Your task to perform on an android device: View the shopping cart on costco.com. Add "razer nari" to the cart on costco.com Image 0: 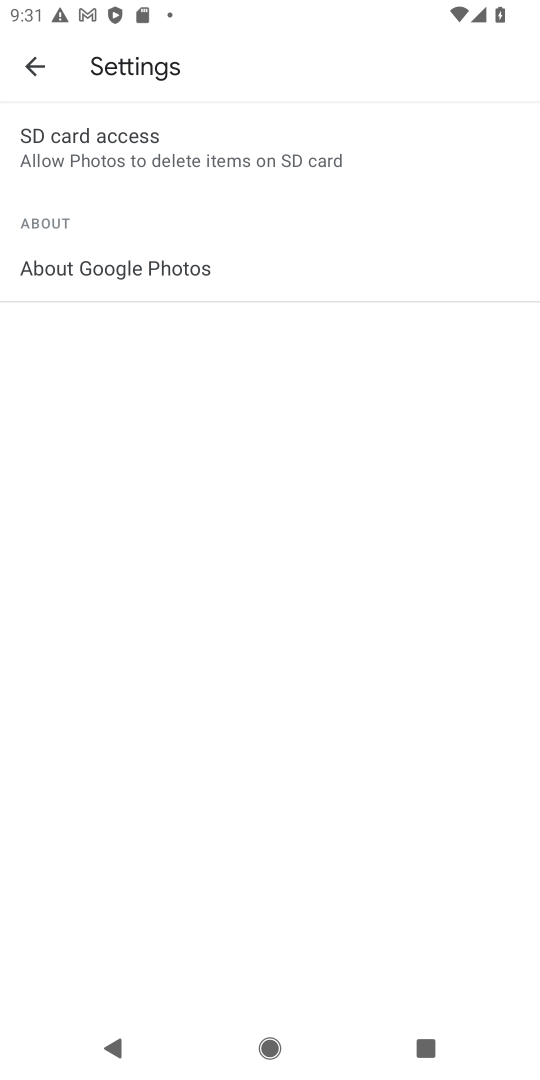
Step 0: press home button
Your task to perform on an android device: View the shopping cart on costco.com. Add "razer nari" to the cart on costco.com Image 1: 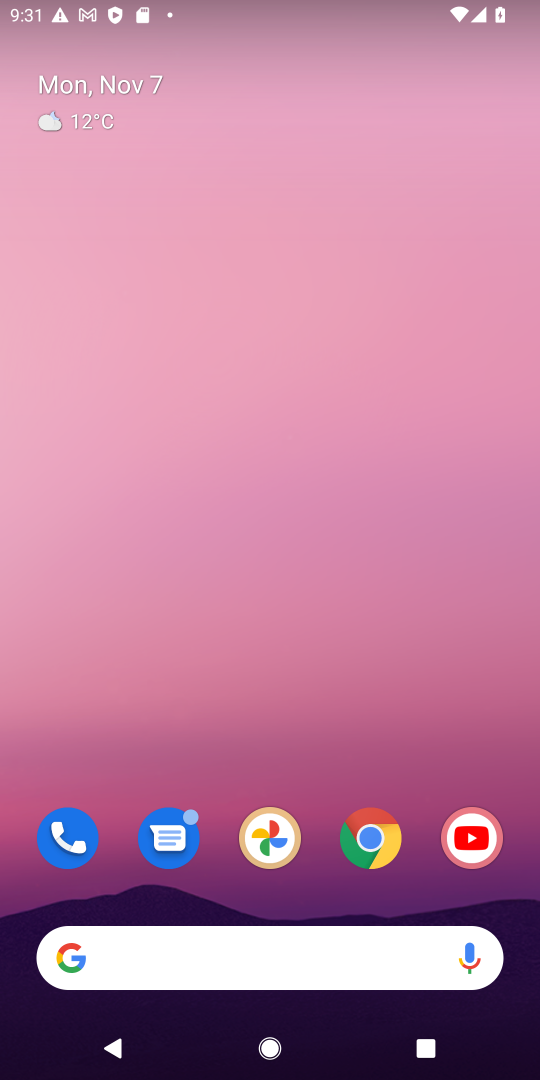
Step 1: click (383, 836)
Your task to perform on an android device: View the shopping cart on costco.com. Add "razer nari" to the cart on costco.com Image 2: 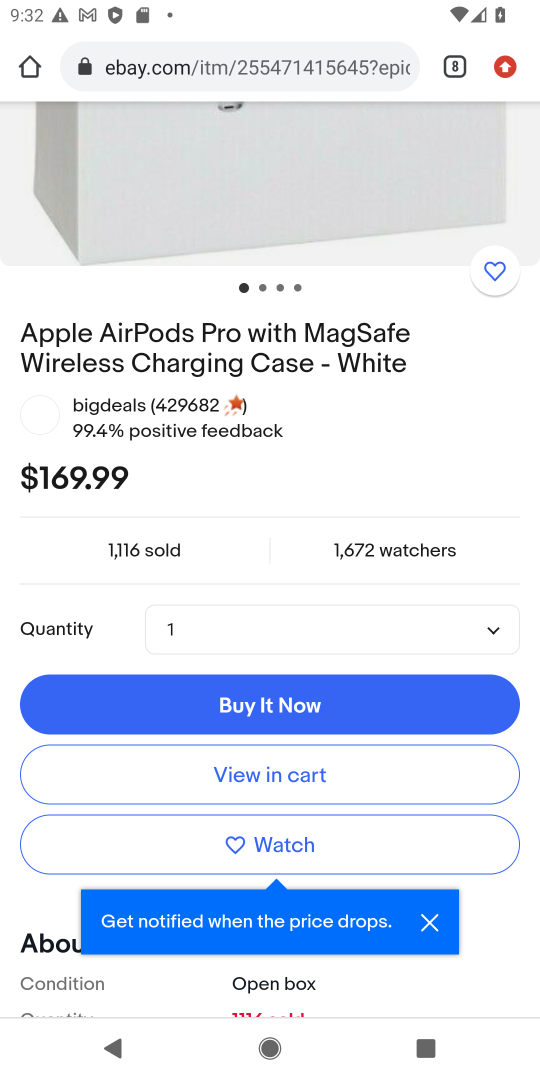
Step 2: click (457, 66)
Your task to perform on an android device: View the shopping cart on costco.com. Add "razer nari" to the cart on costco.com Image 3: 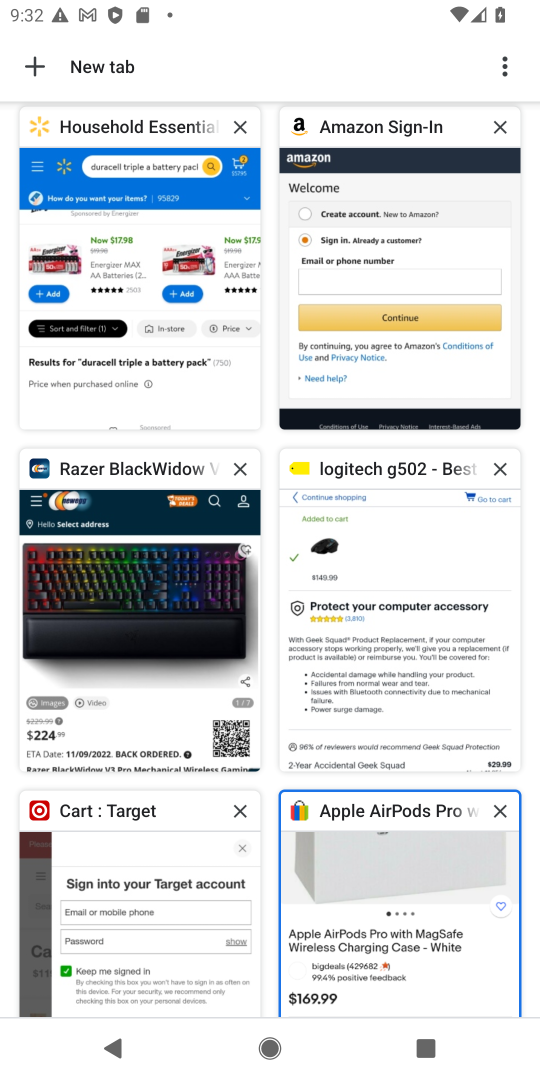
Step 3: click (195, 869)
Your task to perform on an android device: View the shopping cart on costco.com. Add "razer nari" to the cart on costco.com Image 4: 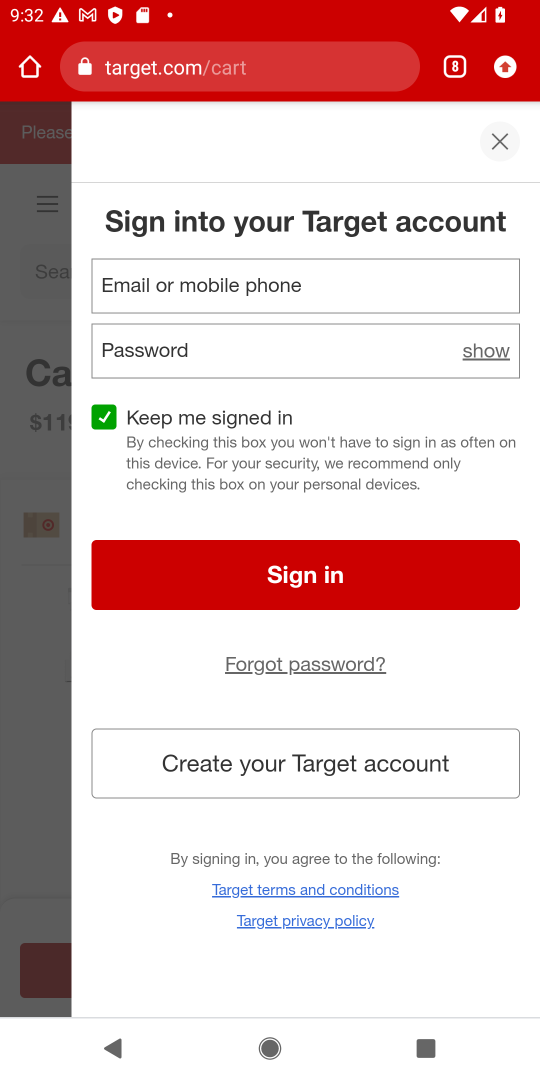
Step 4: click (496, 138)
Your task to perform on an android device: View the shopping cart on costco.com. Add "razer nari" to the cart on costco.com Image 5: 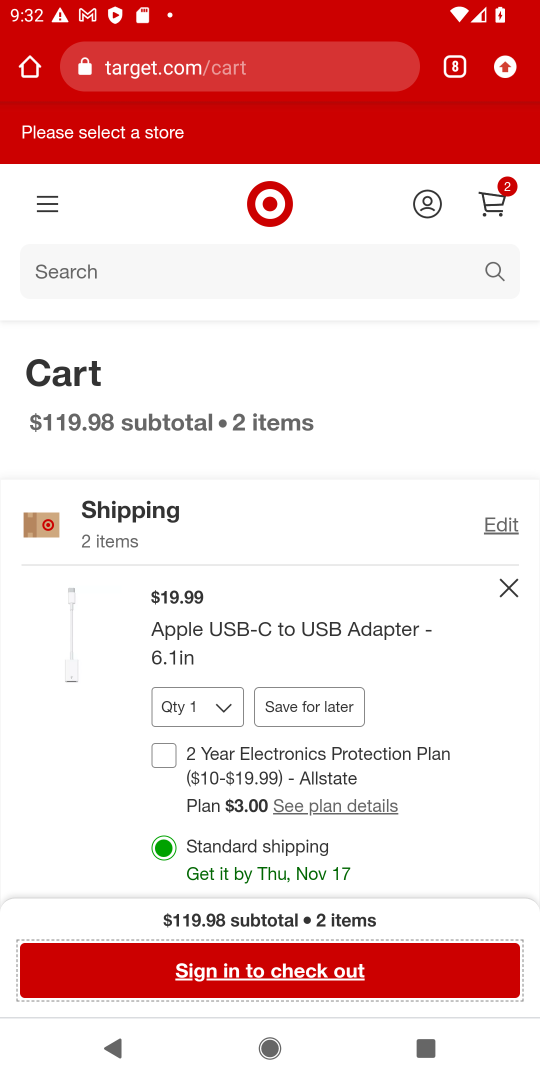
Step 5: click (239, 276)
Your task to perform on an android device: View the shopping cart on costco.com. Add "razer nari" to the cart on costco.com Image 6: 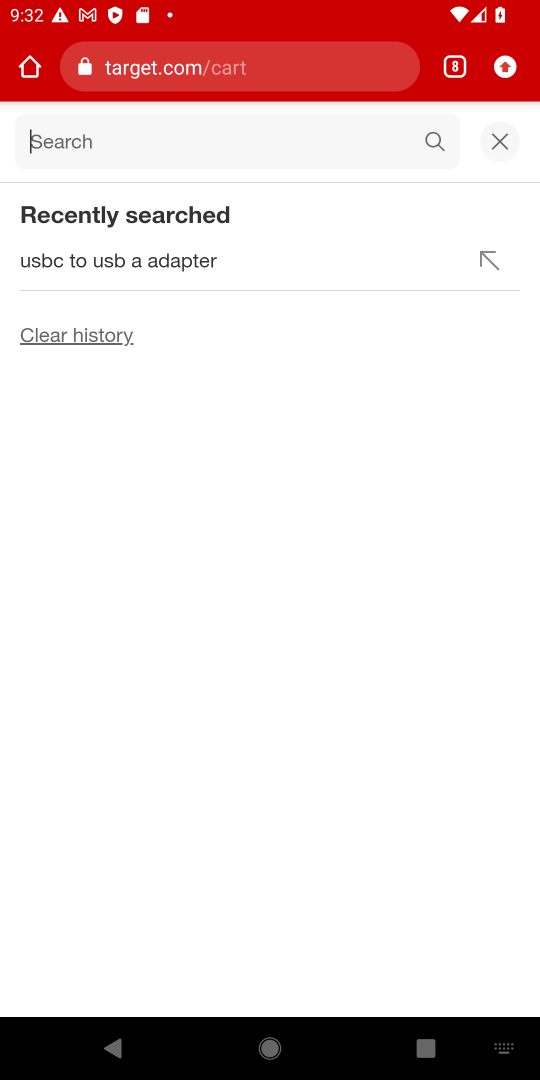
Step 6: press enter
Your task to perform on an android device: View the shopping cart on costco.com. Add "razer nari" to the cart on costco.com Image 7: 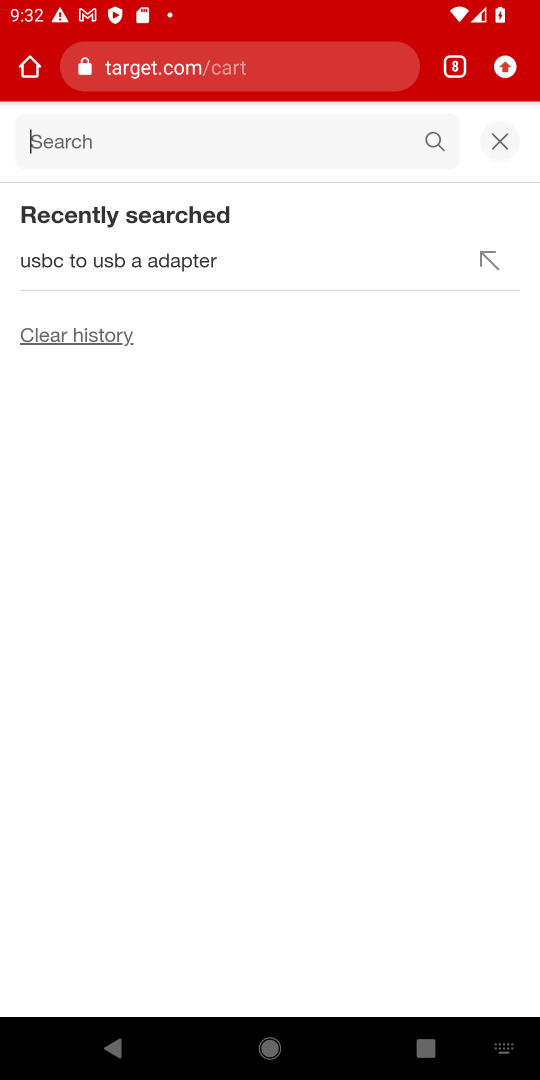
Step 7: type "razer nari"
Your task to perform on an android device: View the shopping cart on costco.com. Add "razer nari" to the cart on costco.com Image 8: 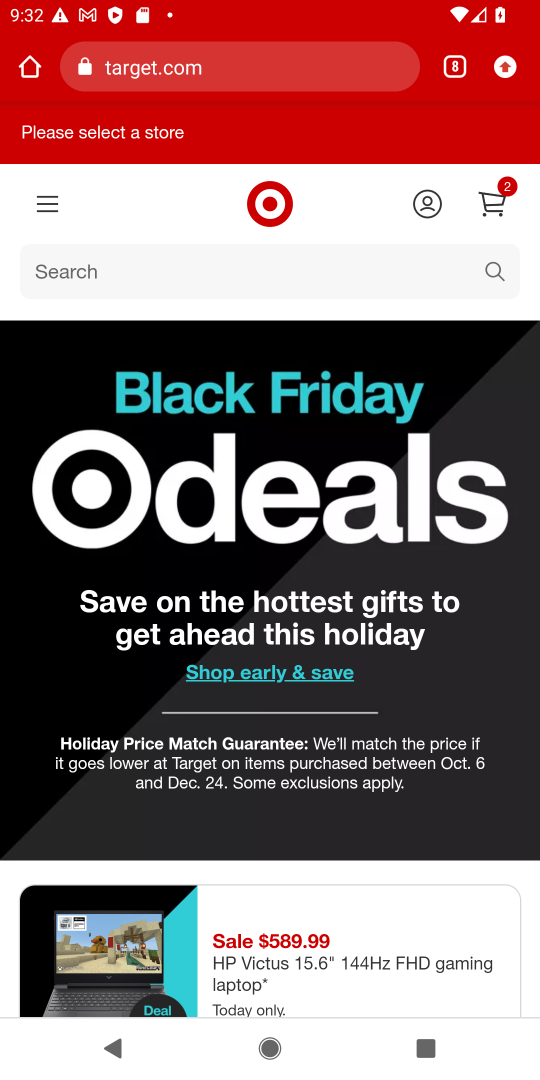
Step 8: drag from (417, 865) to (420, 401)
Your task to perform on an android device: View the shopping cart on costco.com. Add "razer nari" to the cart on costco.com Image 9: 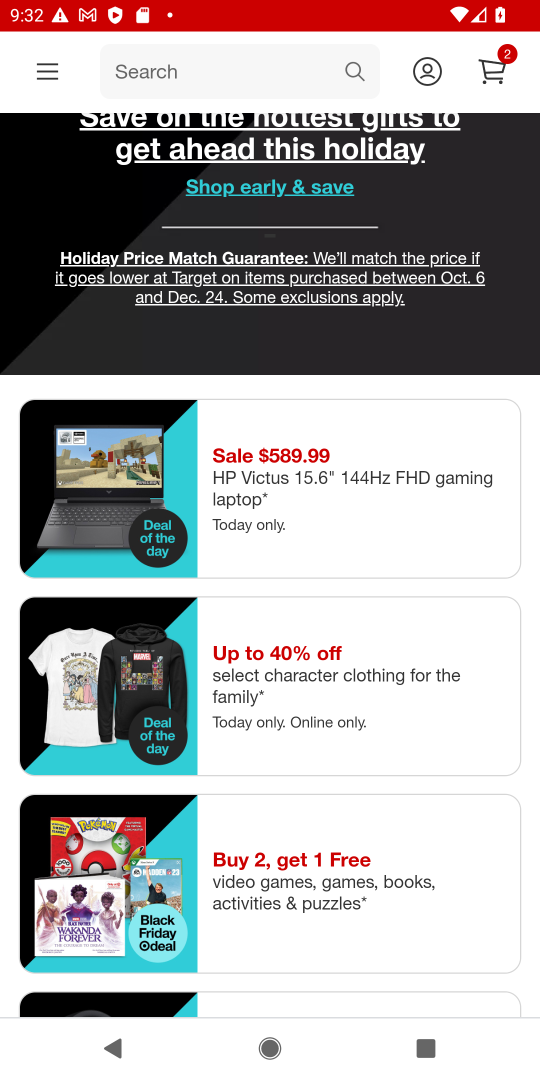
Step 9: drag from (347, 794) to (406, 235)
Your task to perform on an android device: View the shopping cart on costco.com. Add "razer nari" to the cart on costco.com Image 10: 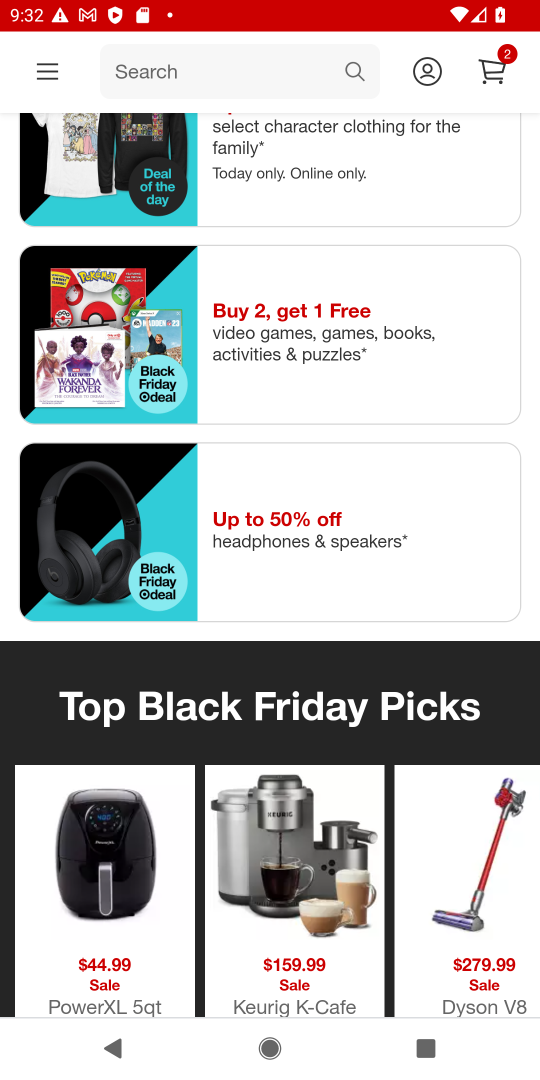
Step 10: drag from (373, 748) to (393, 0)
Your task to perform on an android device: View the shopping cart on costco.com. Add "razer nari" to the cart on costco.com Image 11: 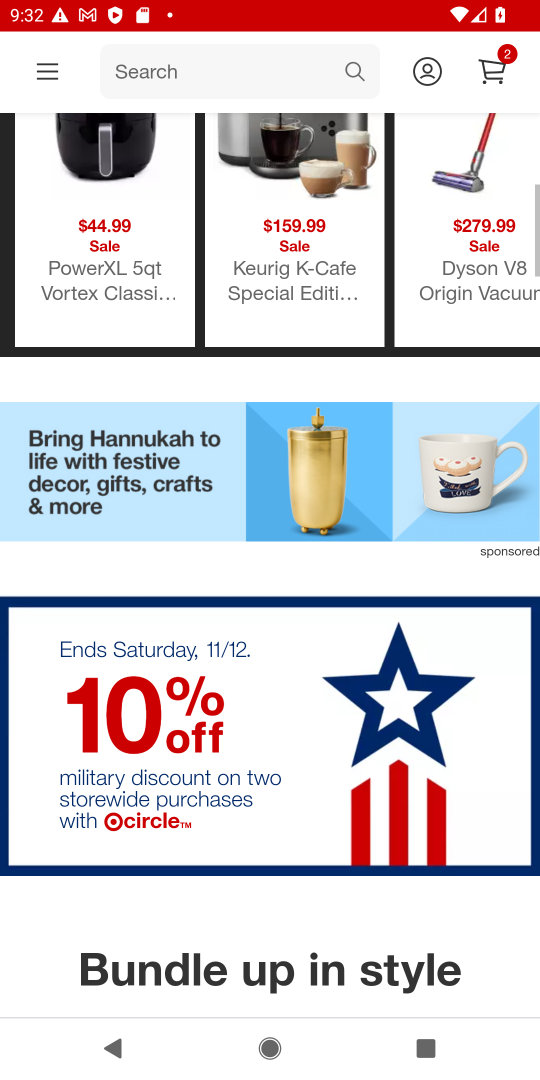
Step 11: click (364, 57)
Your task to perform on an android device: View the shopping cart on costco.com. Add "razer nari" to the cart on costco.com Image 12: 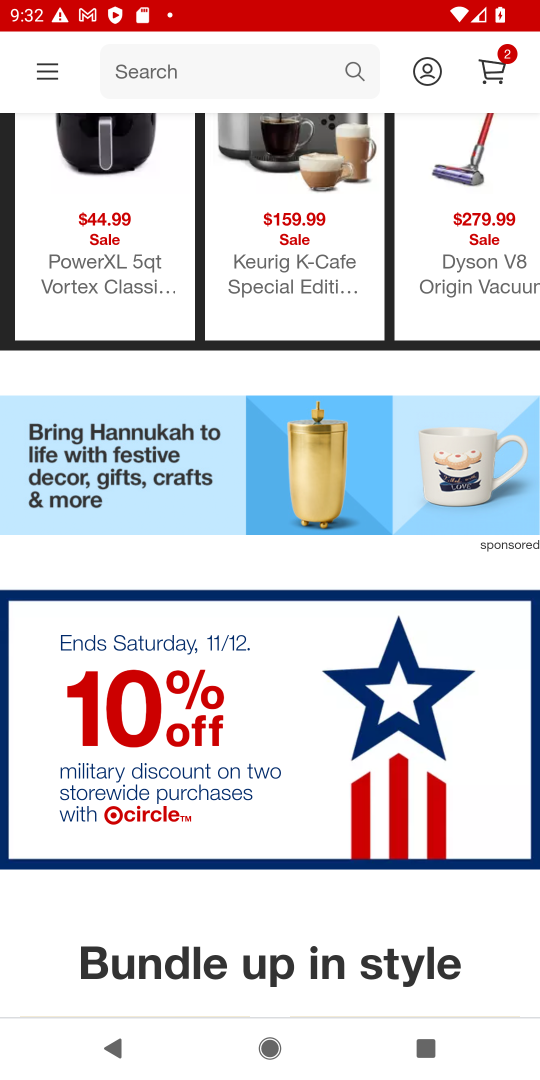
Step 12: click (357, 67)
Your task to perform on an android device: View the shopping cart on costco.com. Add "razer nari" to the cart on costco.com Image 13: 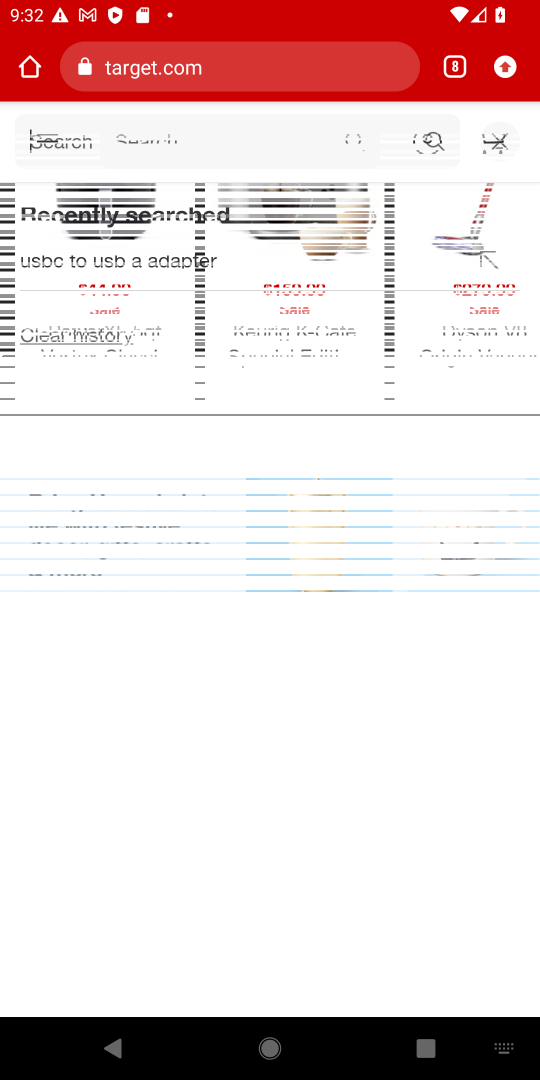
Step 13: type "razer nari"
Your task to perform on an android device: View the shopping cart on costco.com. Add "razer nari" to the cart on costco.com Image 14: 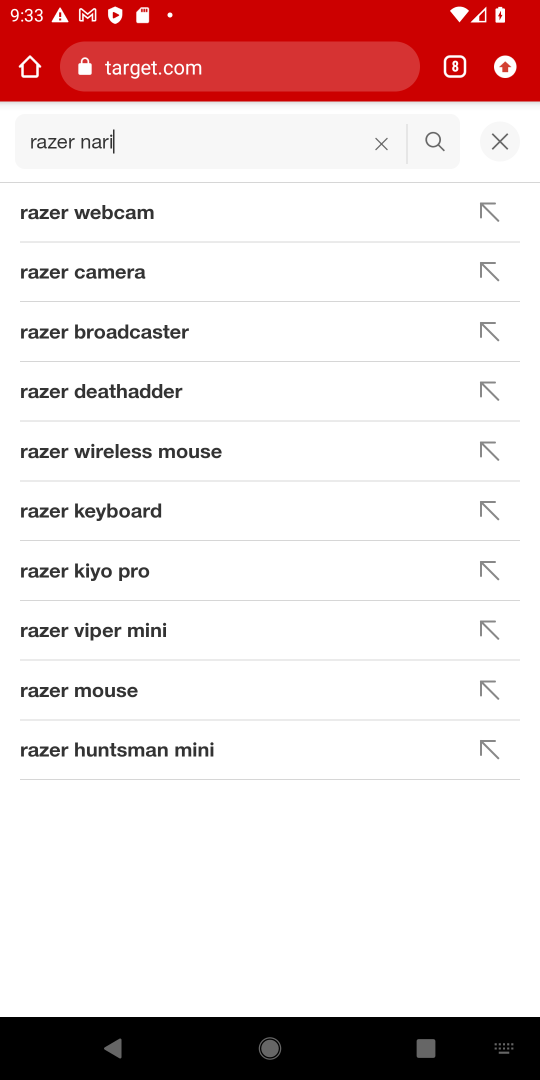
Step 14: click (436, 141)
Your task to perform on an android device: View the shopping cart on costco.com. Add "razer nari" to the cart on costco.com Image 15: 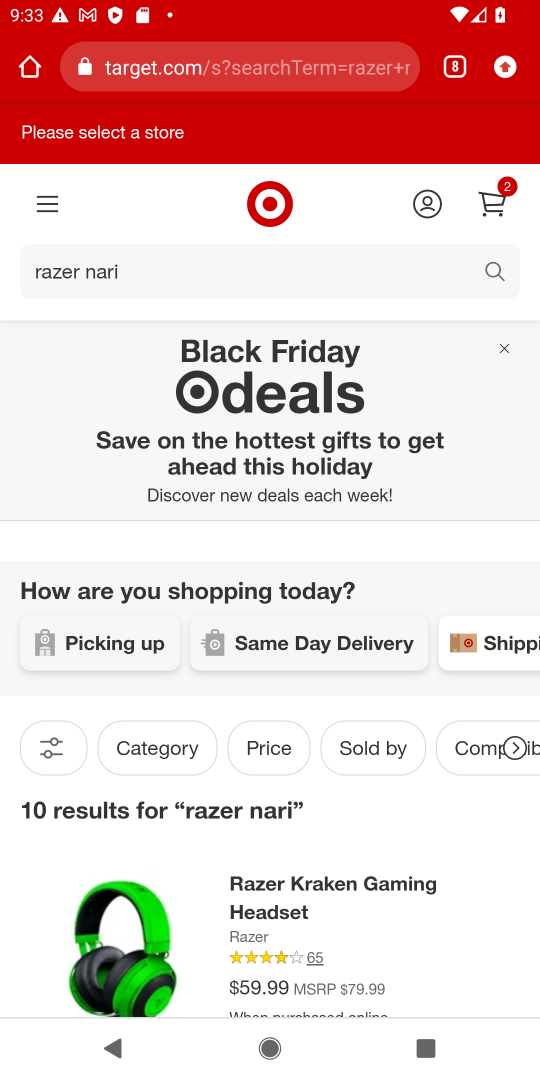
Step 15: drag from (392, 982) to (446, 558)
Your task to perform on an android device: View the shopping cart on costco.com. Add "razer nari" to the cart on costco.com Image 16: 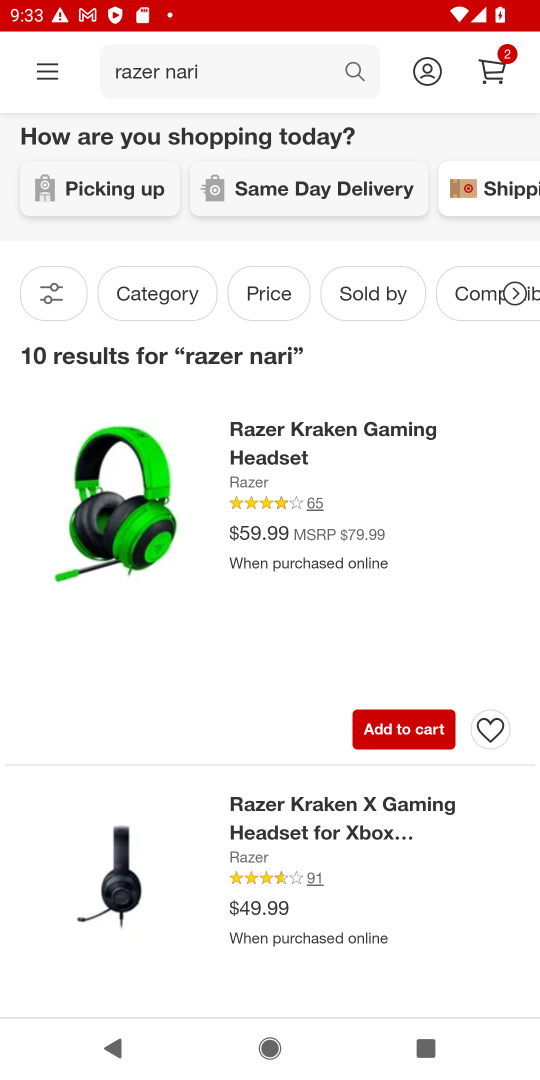
Step 16: click (414, 726)
Your task to perform on an android device: View the shopping cart on costco.com. Add "razer nari" to the cart on costco.com Image 17: 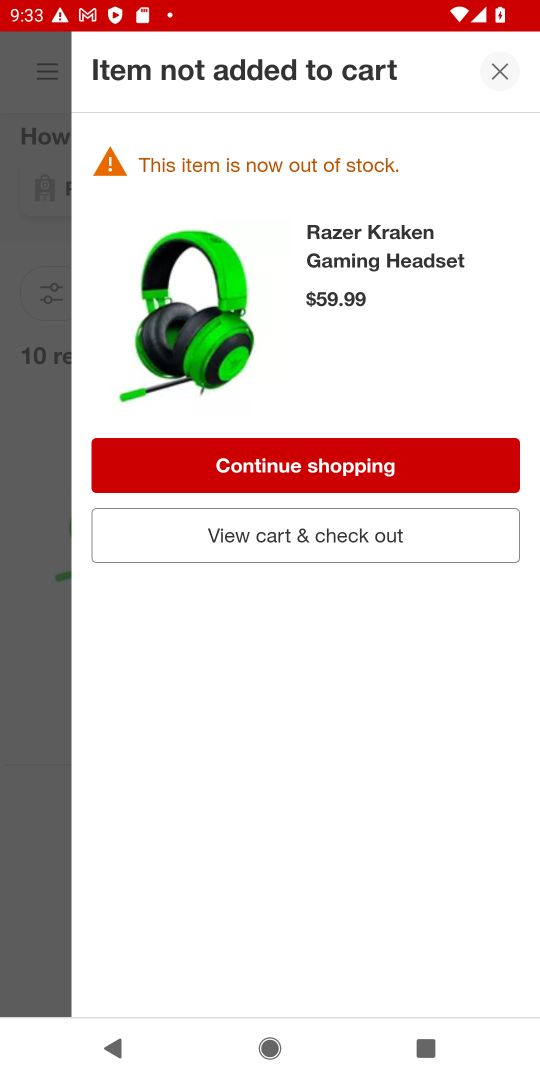
Step 17: task complete